Your task to perform on an android device: toggle translation in the chrome app Image 0: 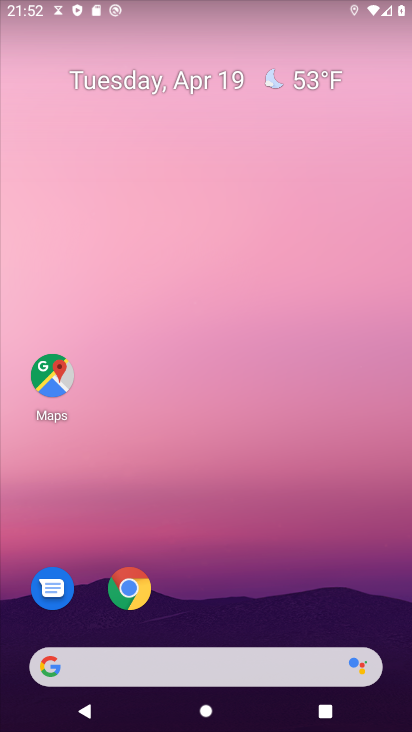
Step 0: click (132, 589)
Your task to perform on an android device: toggle translation in the chrome app Image 1: 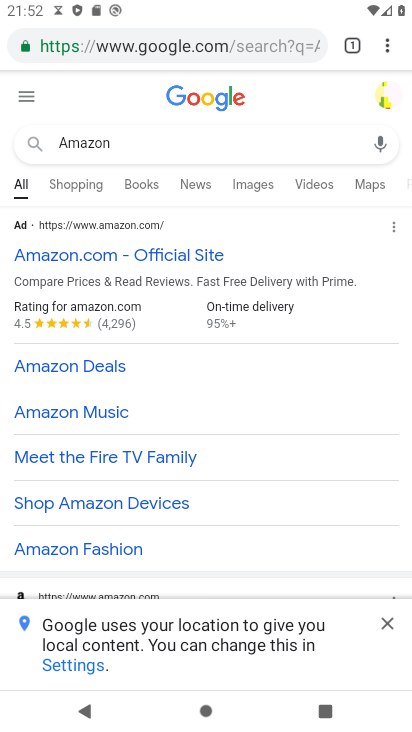
Step 1: click (387, 46)
Your task to perform on an android device: toggle translation in the chrome app Image 2: 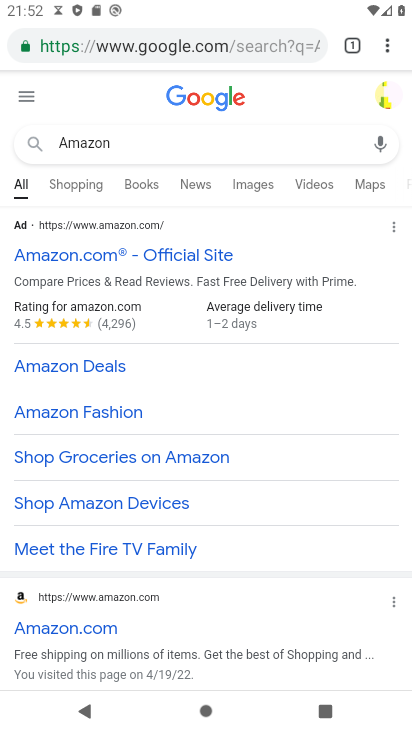
Step 2: click (397, 46)
Your task to perform on an android device: toggle translation in the chrome app Image 3: 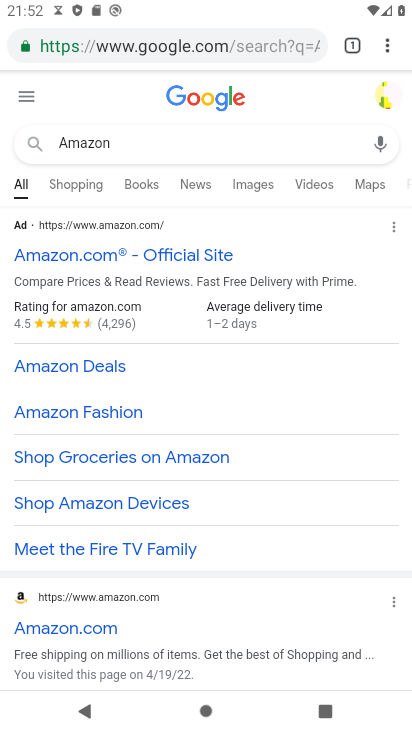
Step 3: click (397, 46)
Your task to perform on an android device: toggle translation in the chrome app Image 4: 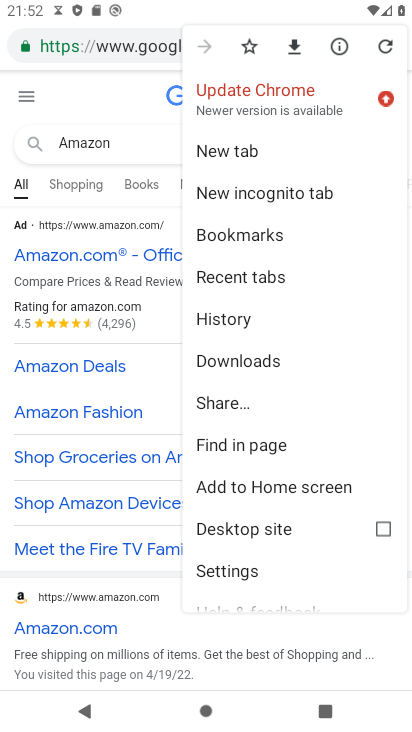
Step 4: click (235, 578)
Your task to perform on an android device: toggle translation in the chrome app Image 5: 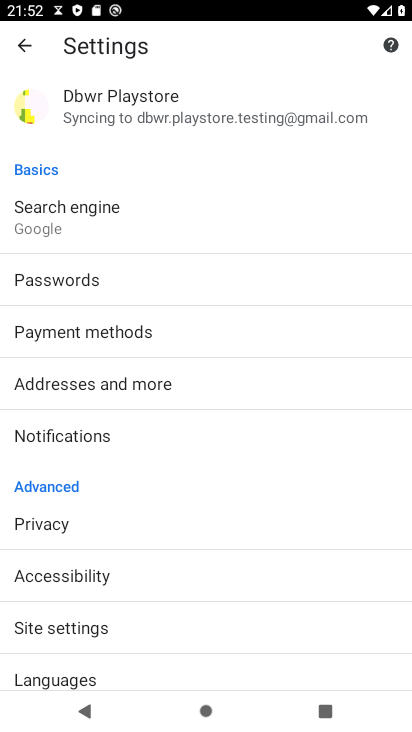
Step 5: click (61, 681)
Your task to perform on an android device: toggle translation in the chrome app Image 6: 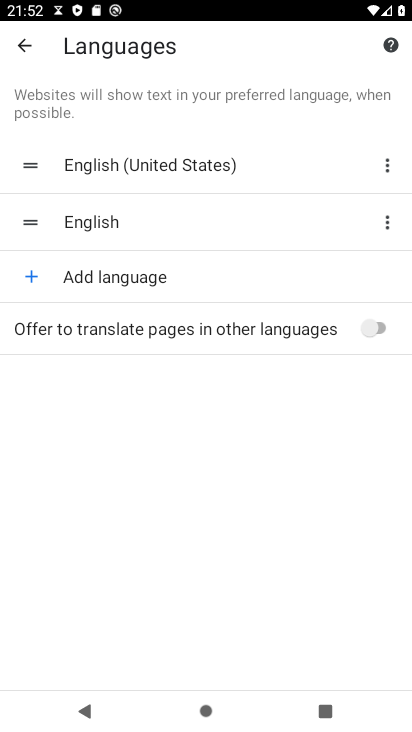
Step 6: click (367, 328)
Your task to perform on an android device: toggle translation in the chrome app Image 7: 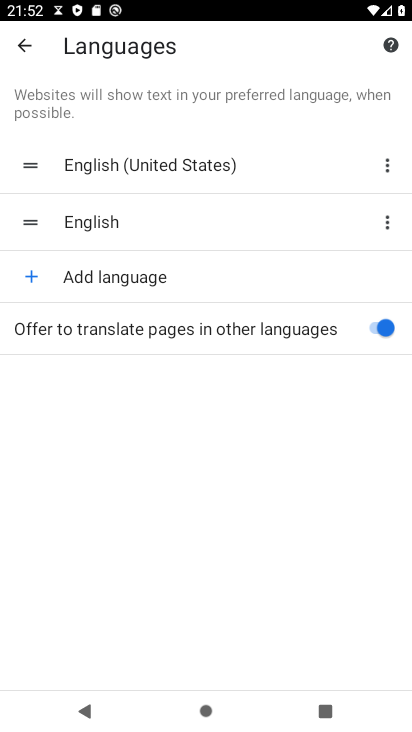
Step 7: task complete